Your task to perform on an android device: change notification settings in the gmail app Image 0: 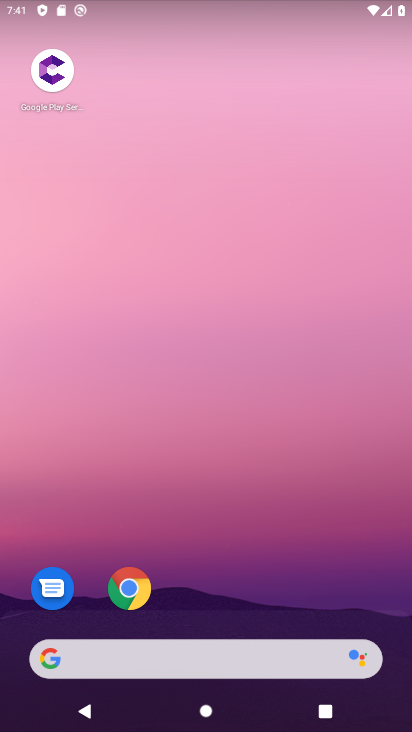
Step 0: drag from (393, 680) to (323, 328)
Your task to perform on an android device: change notification settings in the gmail app Image 1: 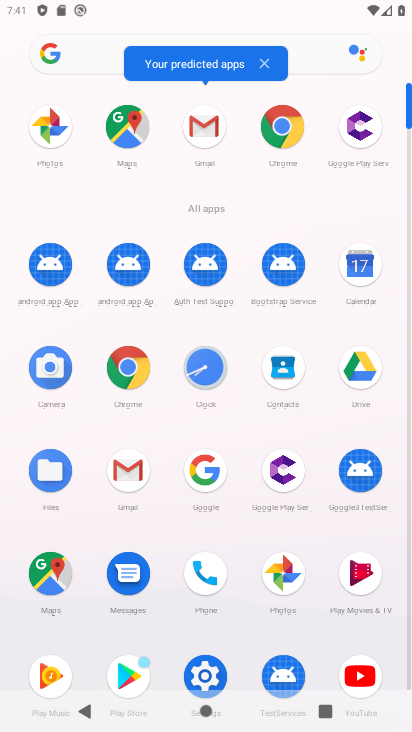
Step 1: click (131, 471)
Your task to perform on an android device: change notification settings in the gmail app Image 2: 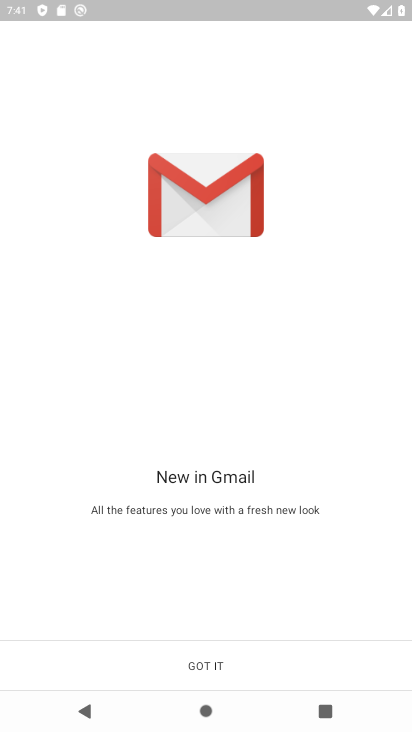
Step 2: click (212, 659)
Your task to perform on an android device: change notification settings in the gmail app Image 3: 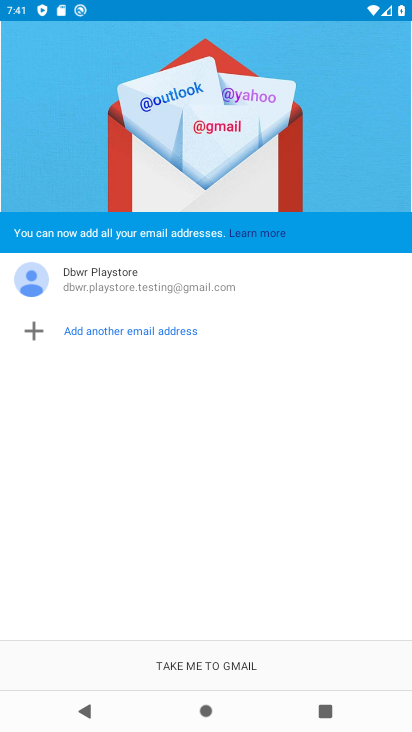
Step 3: click (212, 659)
Your task to perform on an android device: change notification settings in the gmail app Image 4: 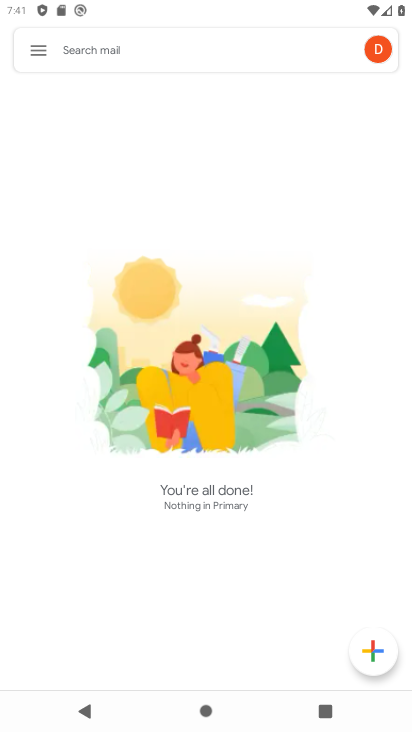
Step 4: click (37, 42)
Your task to perform on an android device: change notification settings in the gmail app Image 5: 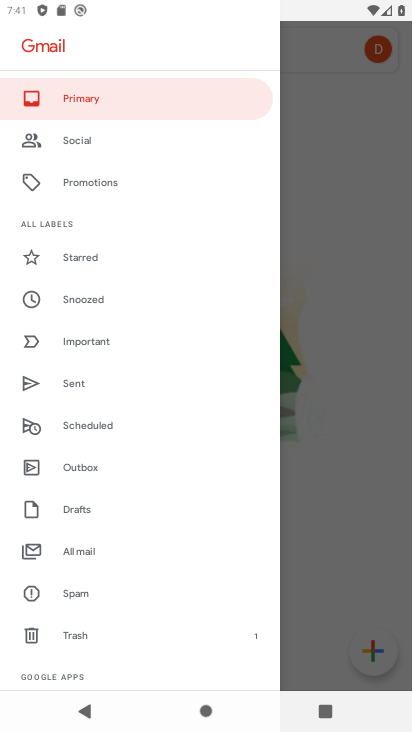
Step 5: drag from (159, 628) to (163, 291)
Your task to perform on an android device: change notification settings in the gmail app Image 6: 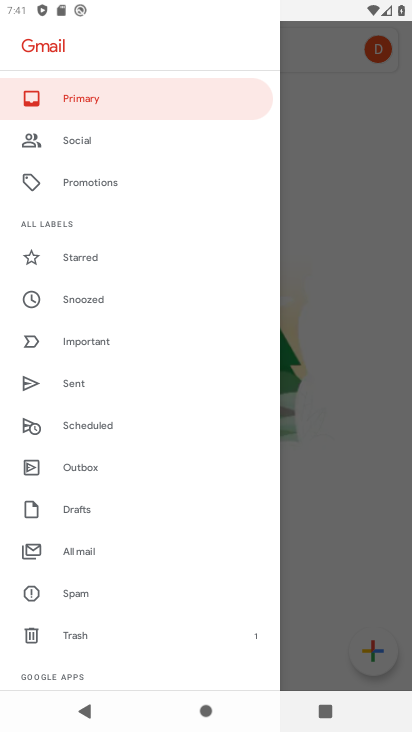
Step 6: drag from (167, 643) to (198, 384)
Your task to perform on an android device: change notification settings in the gmail app Image 7: 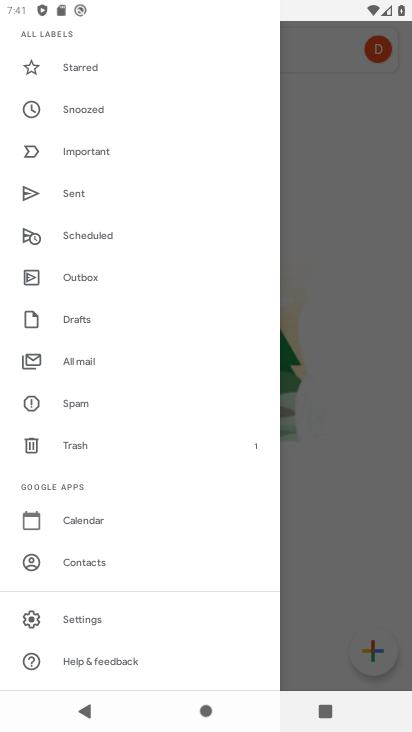
Step 7: click (77, 618)
Your task to perform on an android device: change notification settings in the gmail app Image 8: 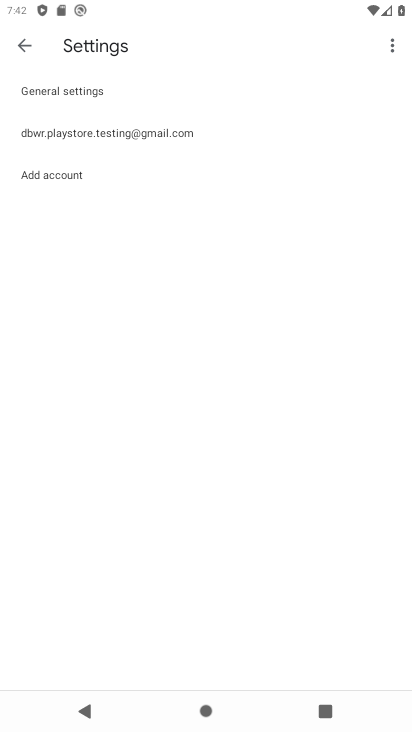
Step 8: click (77, 85)
Your task to perform on an android device: change notification settings in the gmail app Image 9: 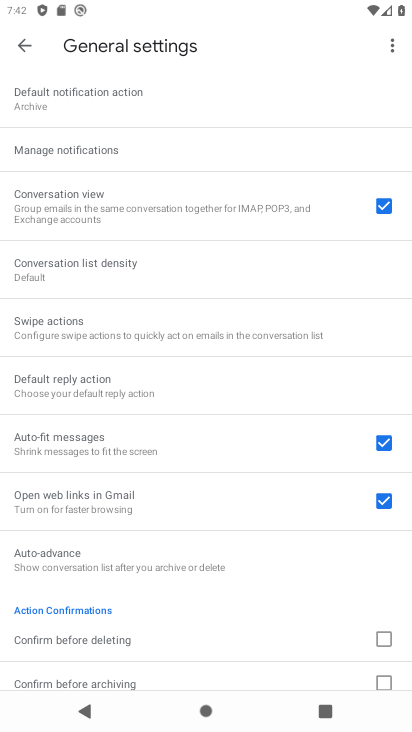
Step 9: click (64, 149)
Your task to perform on an android device: change notification settings in the gmail app Image 10: 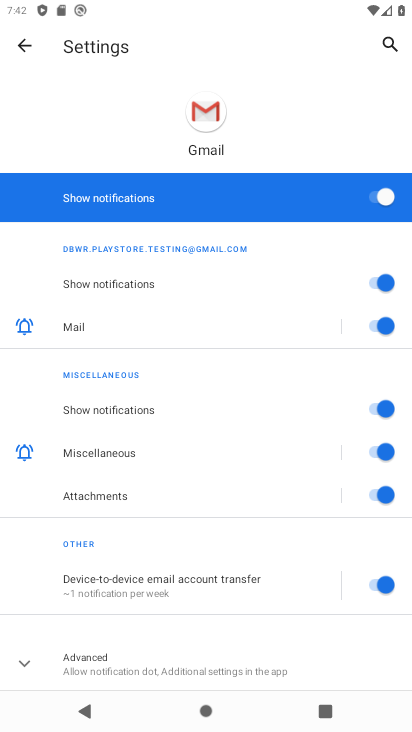
Step 10: click (379, 283)
Your task to perform on an android device: change notification settings in the gmail app Image 11: 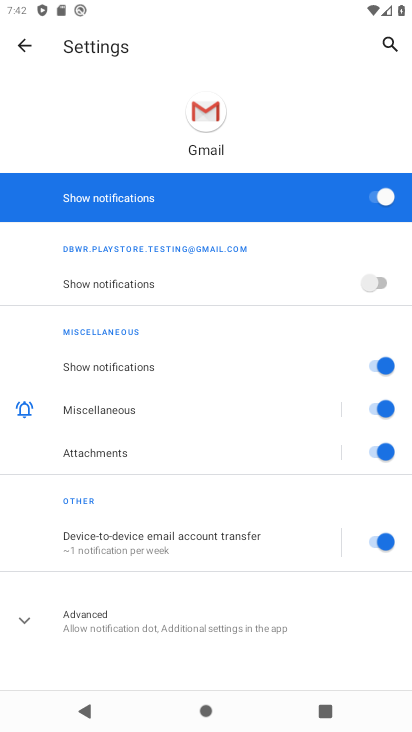
Step 11: click (377, 325)
Your task to perform on an android device: change notification settings in the gmail app Image 12: 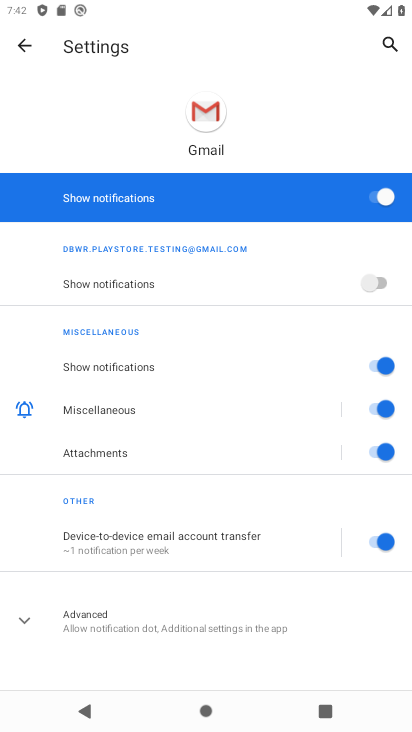
Step 12: click (368, 356)
Your task to perform on an android device: change notification settings in the gmail app Image 13: 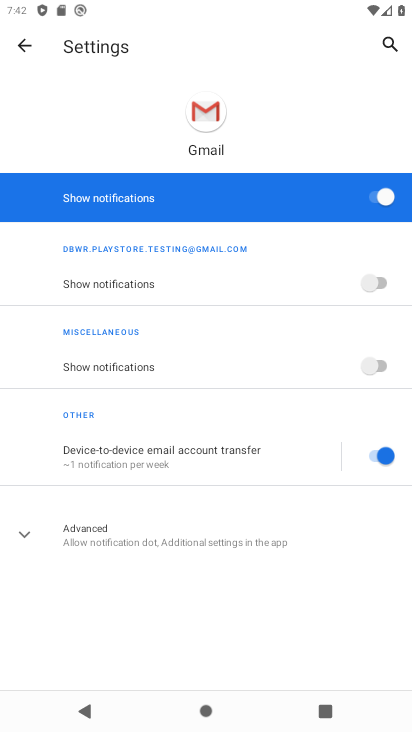
Step 13: click (370, 407)
Your task to perform on an android device: change notification settings in the gmail app Image 14: 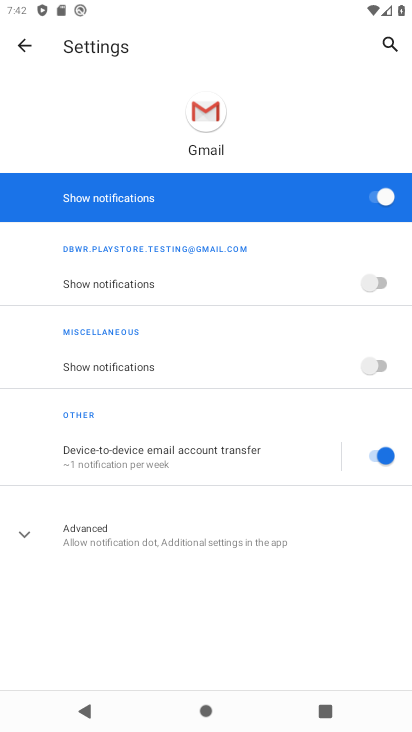
Step 14: click (373, 448)
Your task to perform on an android device: change notification settings in the gmail app Image 15: 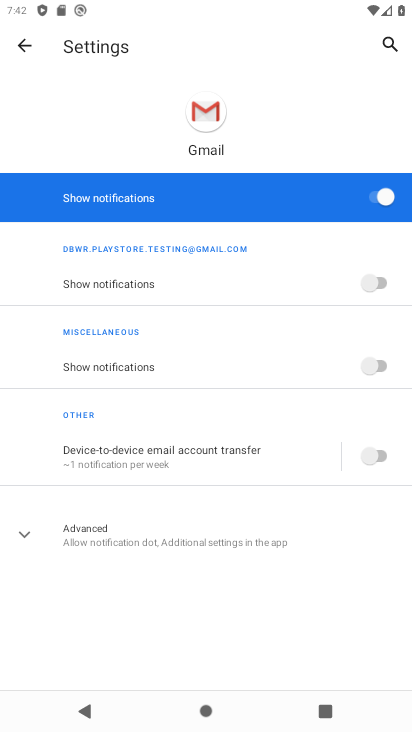
Step 15: task complete